Your task to perform on an android device: turn off location Image 0: 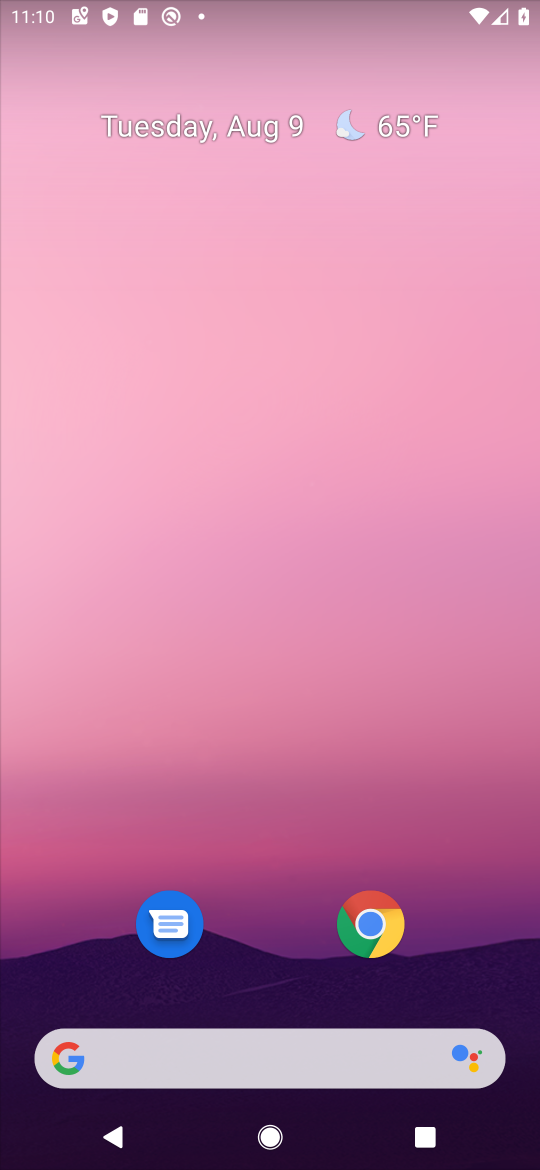
Step 0: drag from (256, 892) to (232, 144)
Your task to perform on an android device: turn off location Image 1: 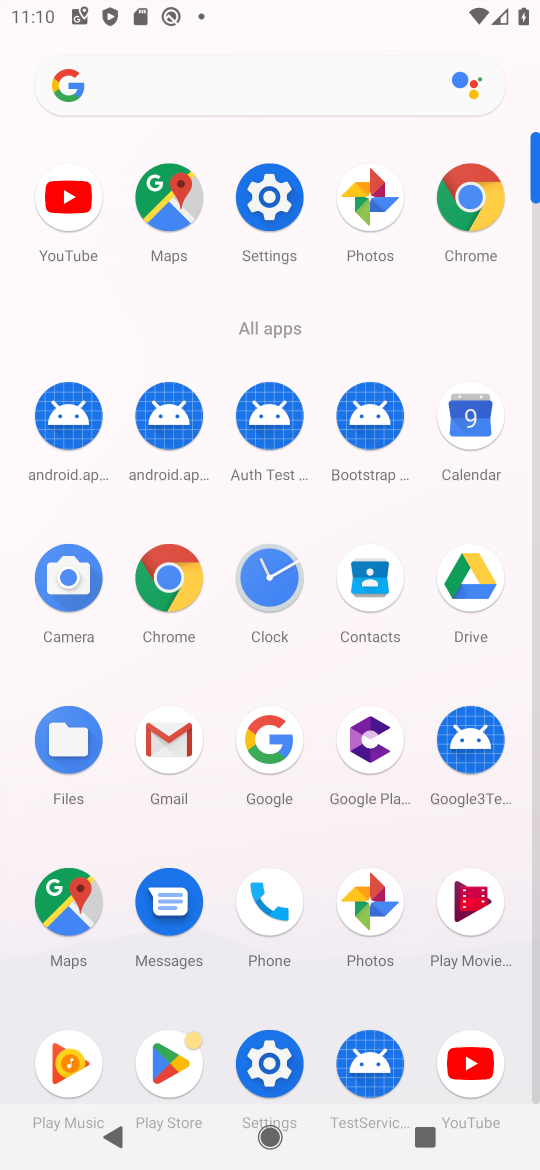
Step 1: click (259, 1048)
Your task to perform on an android device: turn off location Image 2: 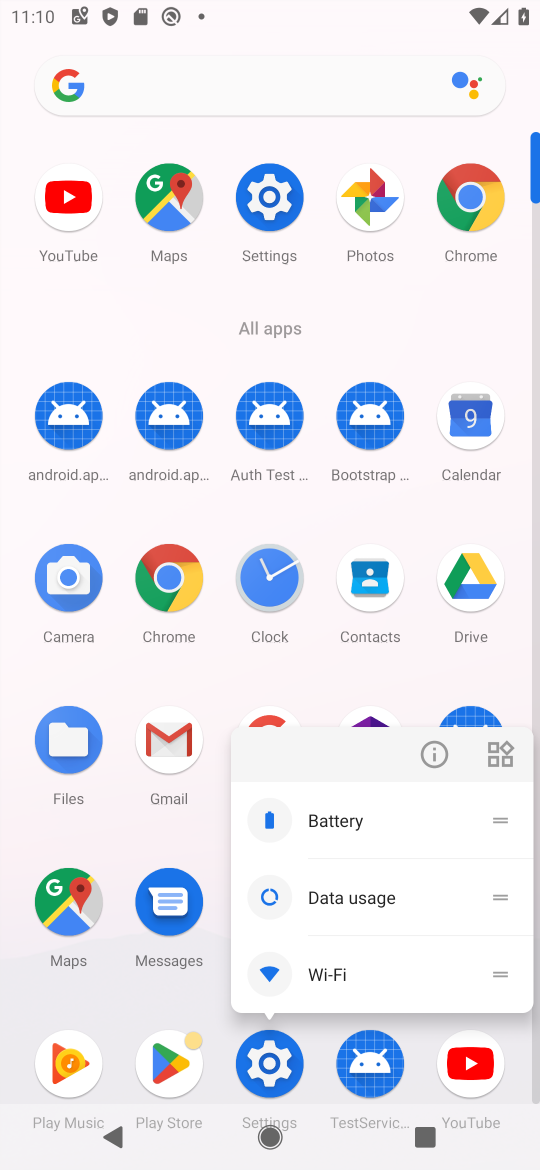
Step 2: click (252, 1071)
Your task to perform on an android device: turn off location Image 3: 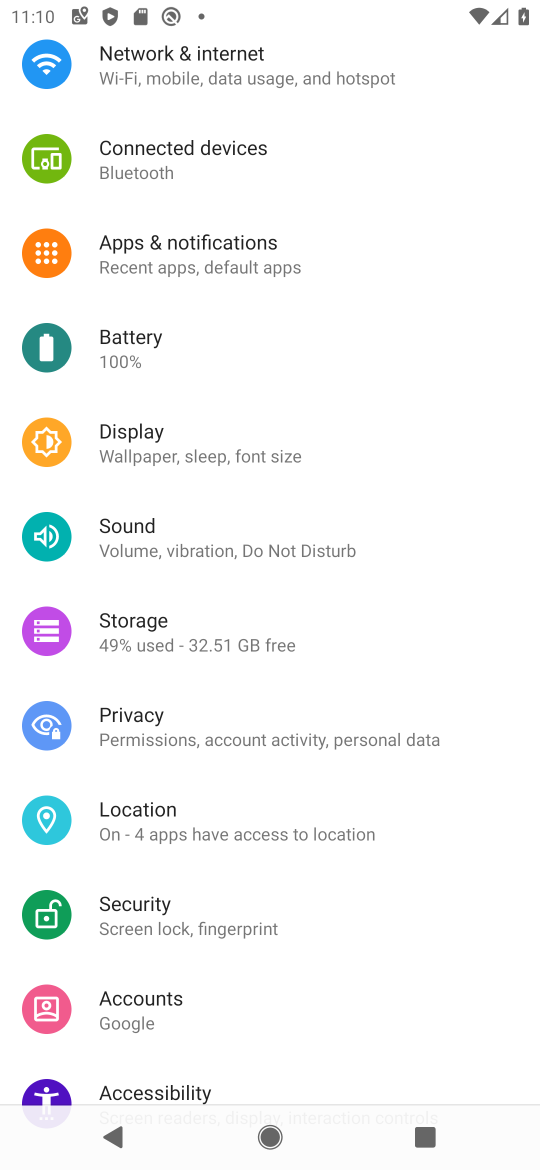
Step 3: click (153, 817)
Your task to perform on an android device: turn off location Image 4: 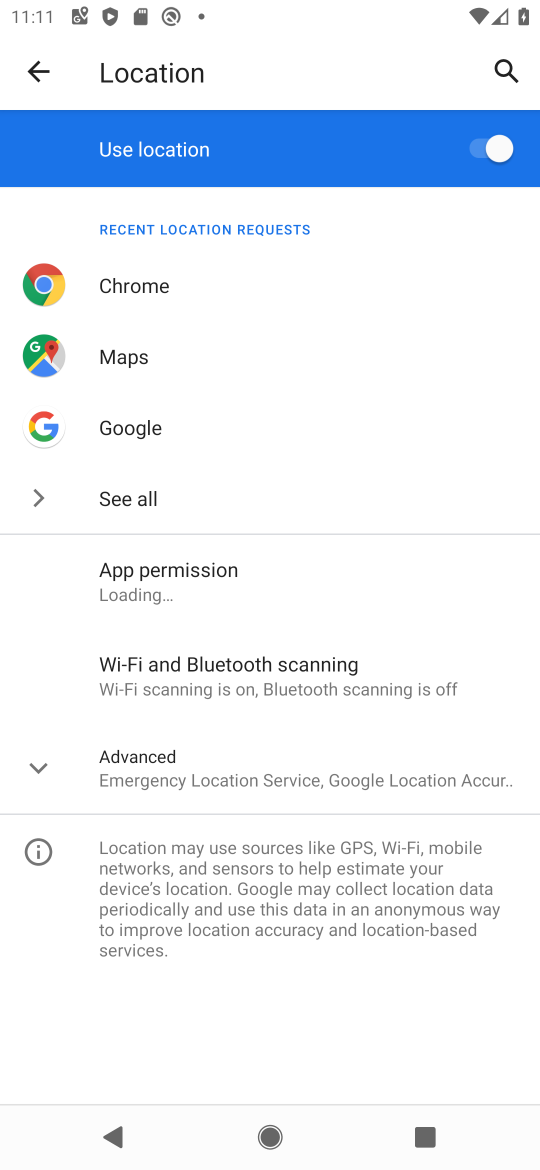
Step 4: click (476, 151)
Your task to perform on an android device: turn off location Image 5: 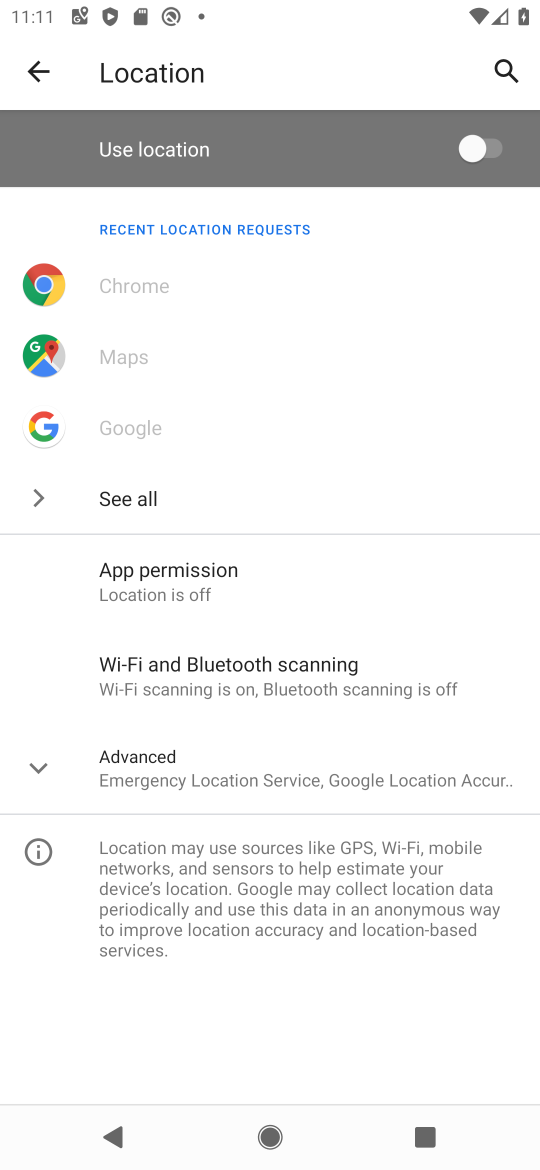
Step 5: task complete